Your task to perform on an android device: check data usage Image 0: 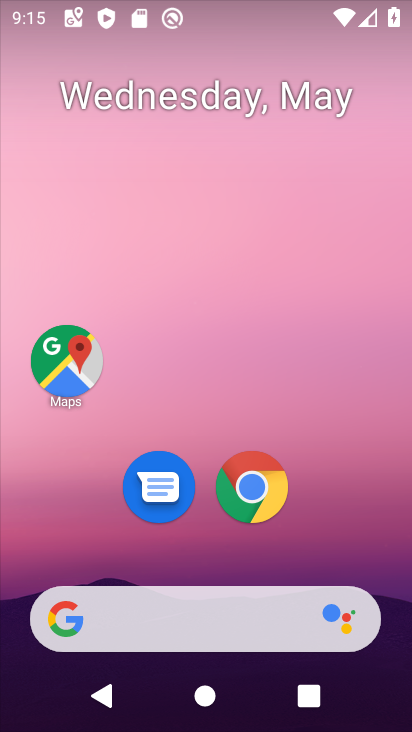
Step 0: drag from (335, 528) to (252, 190)
Your task to perform on an android device: check data usage Image 1: 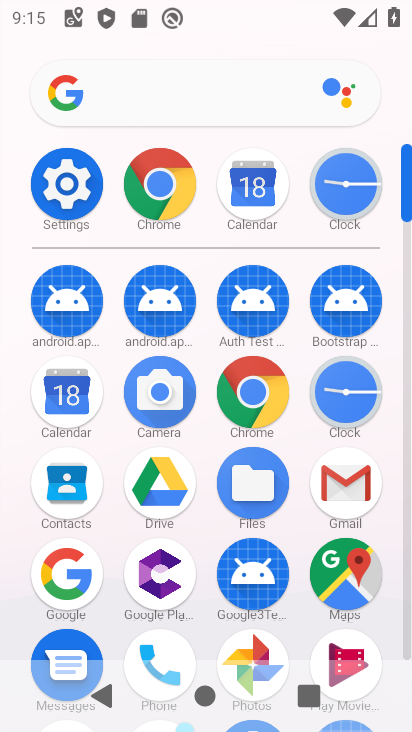
Step 1: click (62, 191)
Your task to perform on an android device: check data usage Image 2: 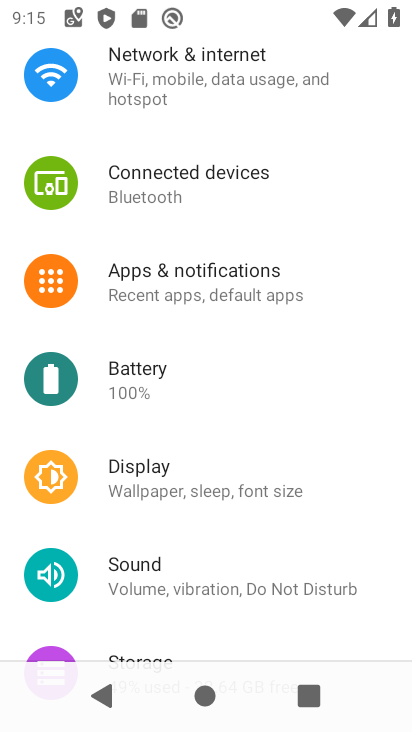
Step 2: drag from (195, 128) to (401, 671)
Your task to perform on an android device: check data usage Image 3: 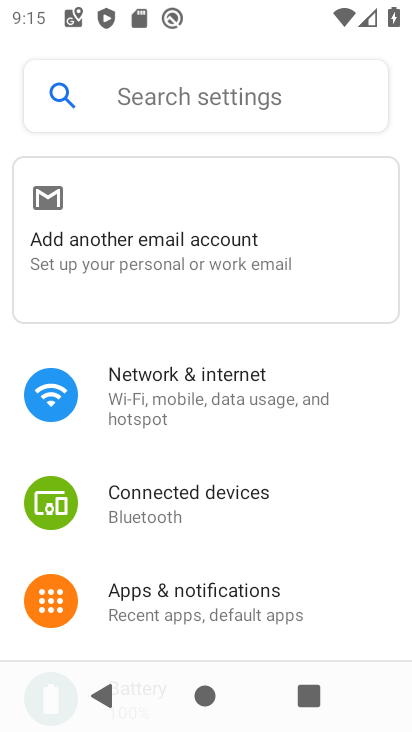
Step 3: click (198, 372)
Your task to perform on an android device: check data usage Image 4: 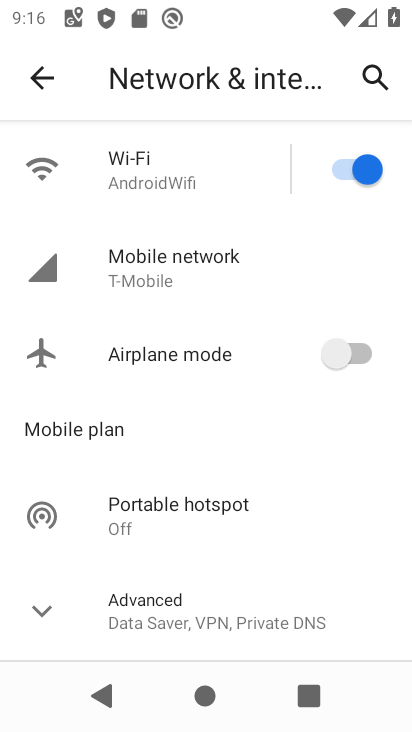
Step 4: click (184, 251)
Your task to perform on an android device: check data usage Image 5: 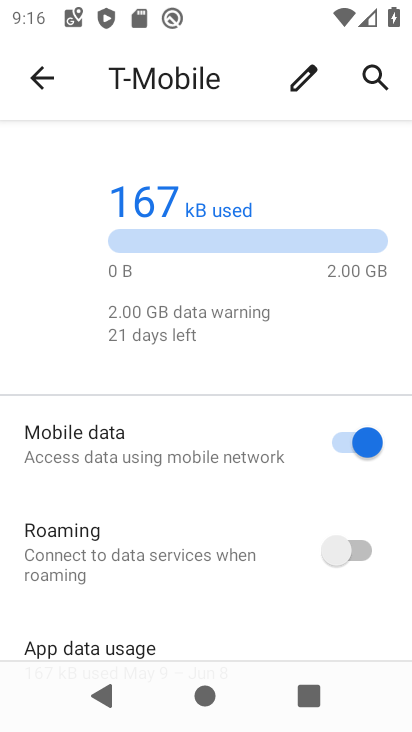
Step 5: task complete